Your task to perform on an android device: turn vacation reply on in the gmail app Image 0: 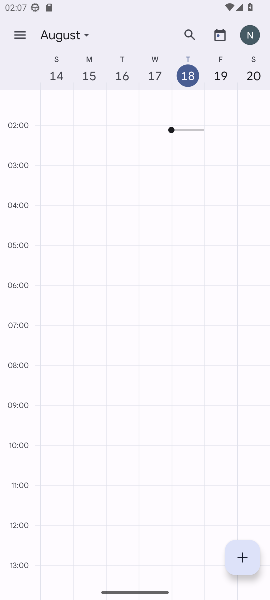
Step 0: press home button
Your task to perform on an android device: turn vacation reply on in the gmail app Image 1: 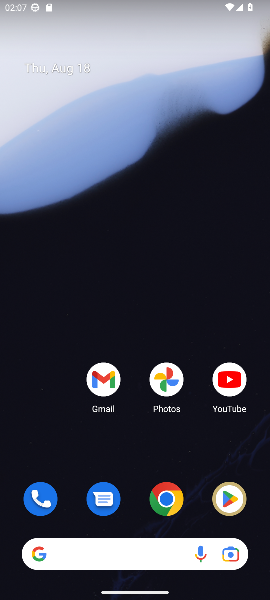
Step 1: click (106, 377)
Your task to perform on an android device: turn vacation reply on in the gmail app Image 2: 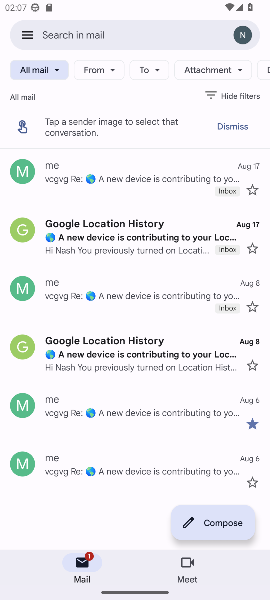
Step 2: click (26, 29)
Your task to perform on an android device: turn vacation reply on in the gmail app Image 3: 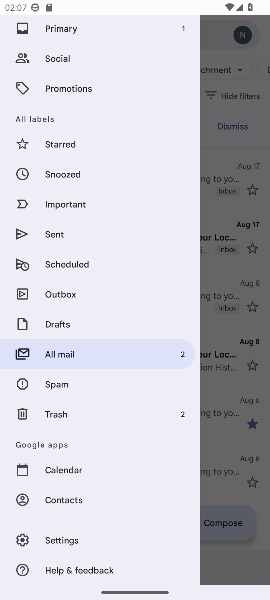
Step 3: click (62, 539)
Your task to perform on an android device: turn vacation reply on in the gmail app Image 4: 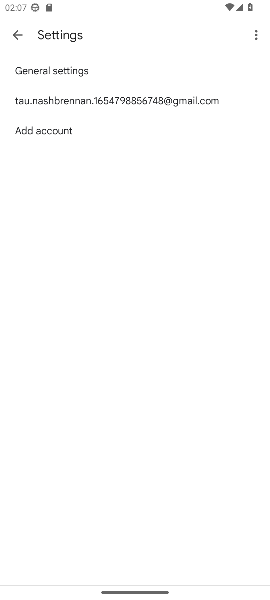
Step 4: click (49, 99)
Your task to perform on an android device: turn vacation reply on in the gmail app Image 5: 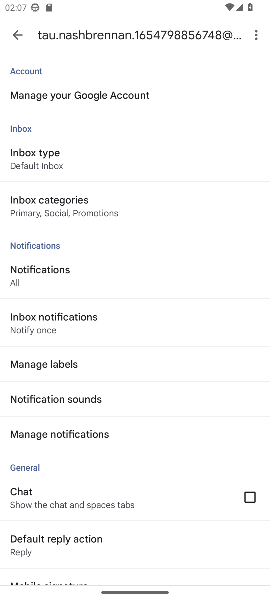
Step 5: drag from (153, 519) to (137, 92)
Your task to perform on an android device: turn vacation reply on in the gmail app Image 6: 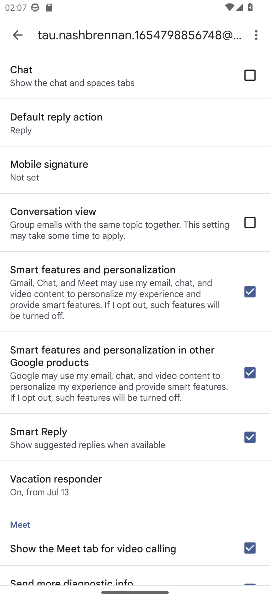
Step 6: click (59, 475)
Your task to perform on an android device: turn vacation reply on in the gmail app Image 7: 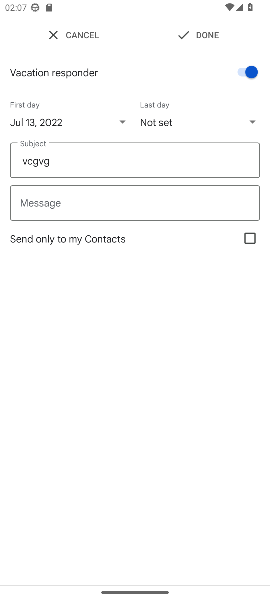
Step 7: task complete